Your task to perform on an android device: Open Google Maps Image 0: 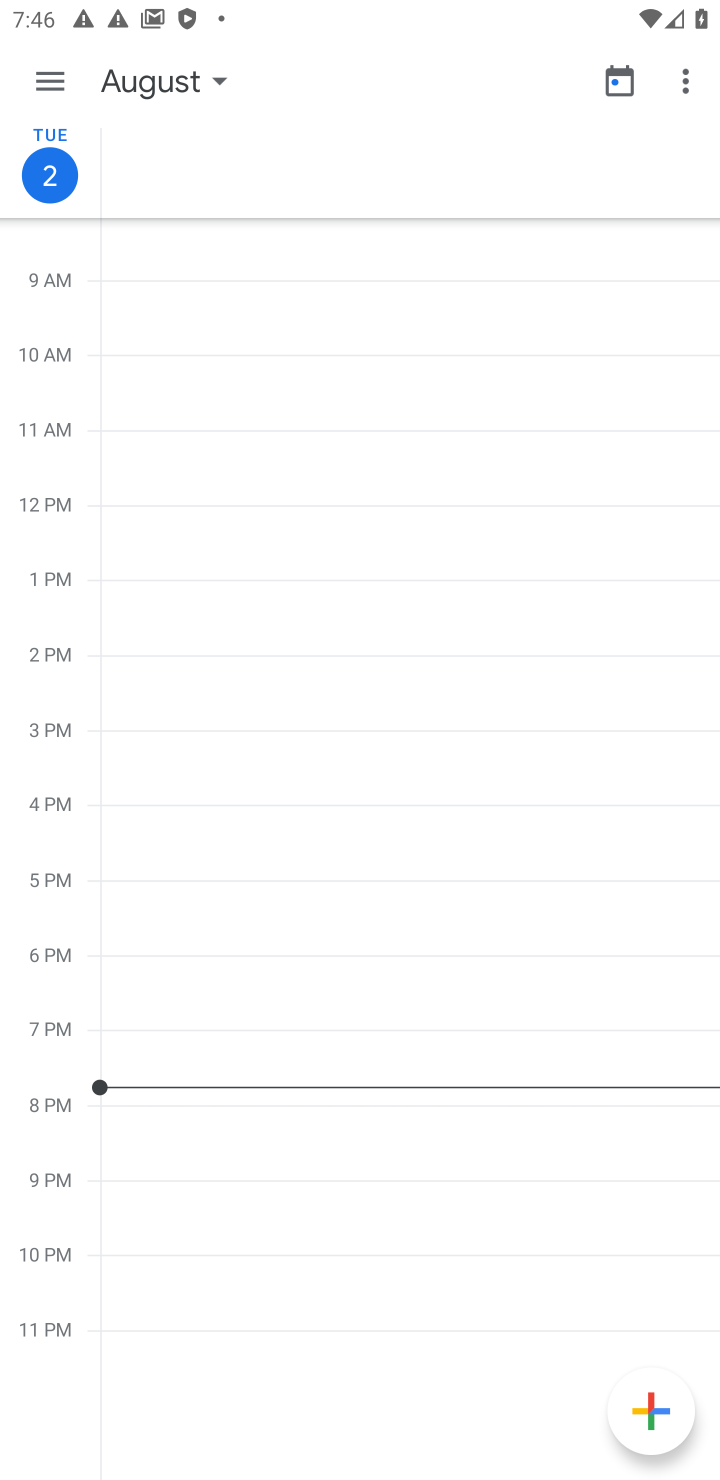
Step 0: press home button
Your task to perform on an android device: Open Google Maps Image 1: 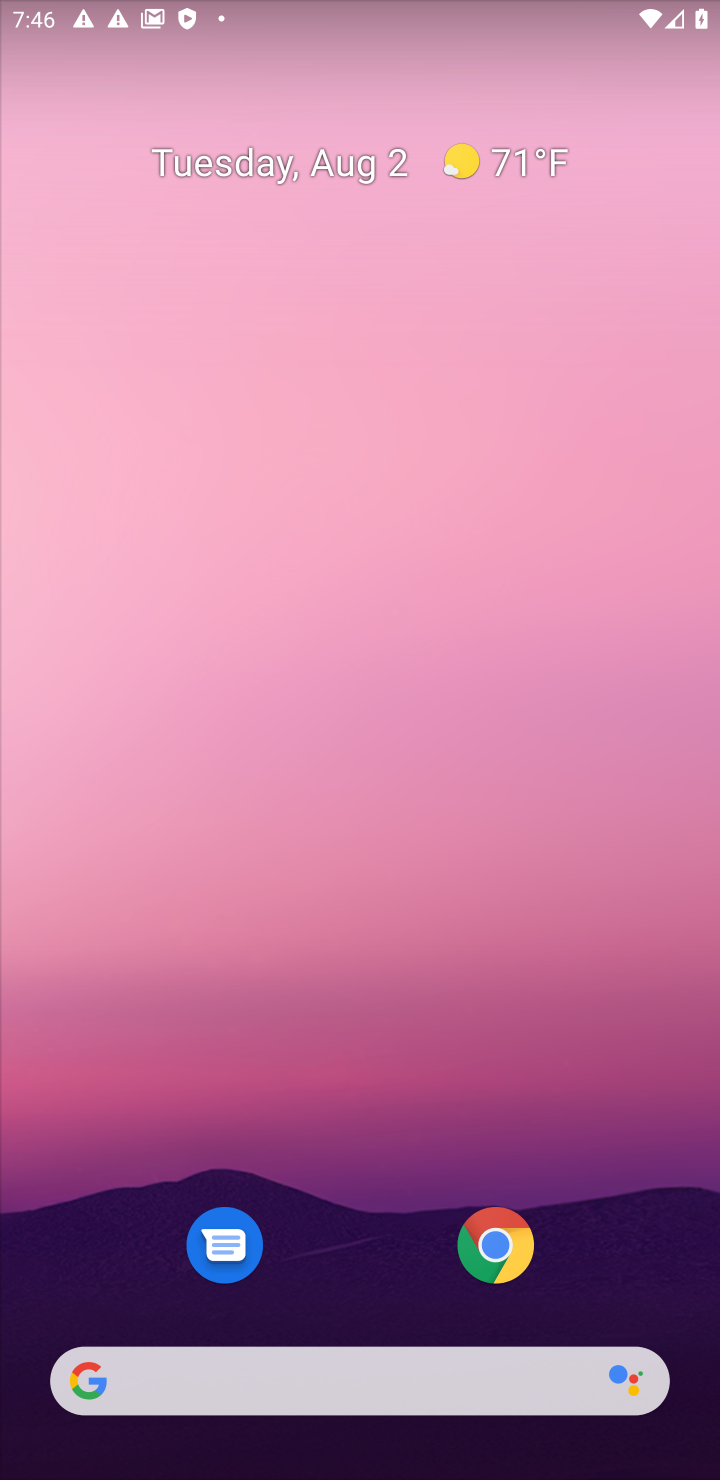
Step 1: drag from (295, 916) to (275, 305)
Your task to perform on an android device: Open Google Maps Image 2: 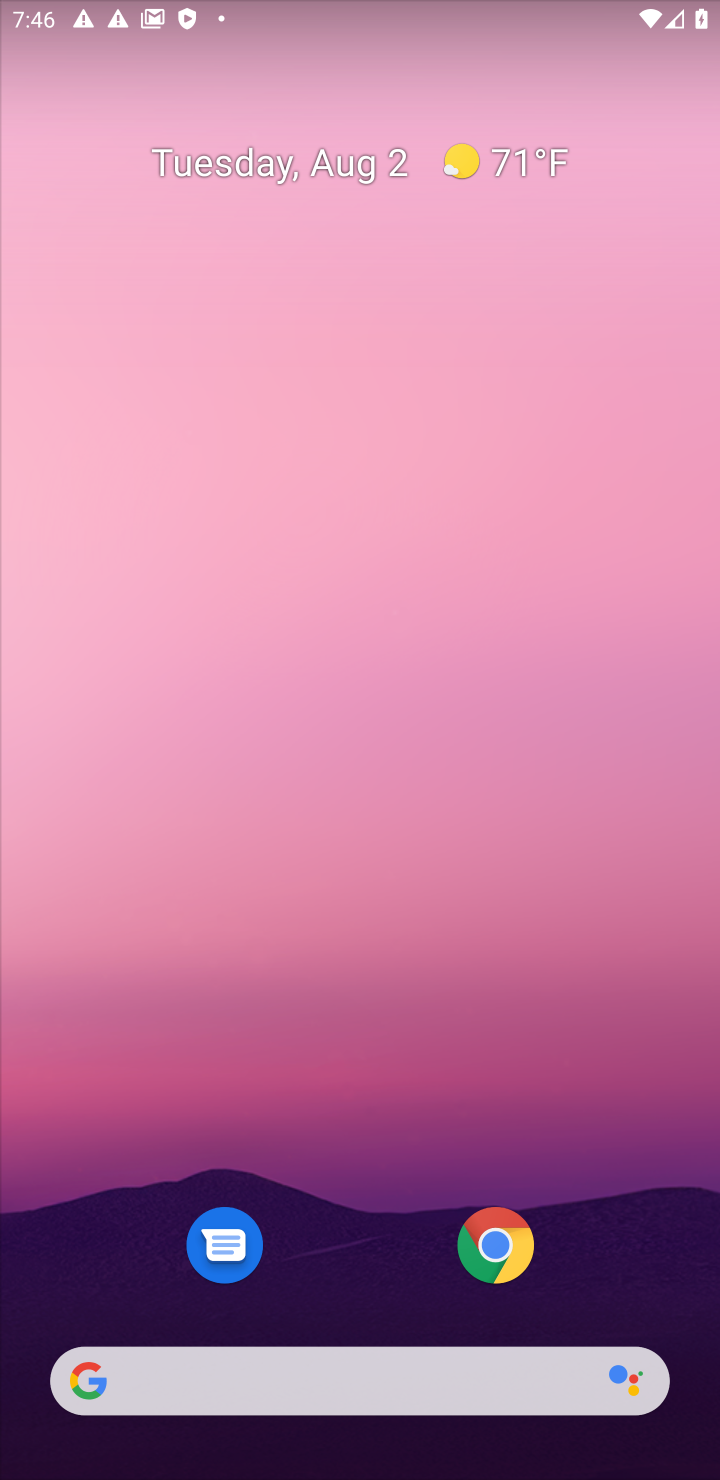
Step 2: drag from (302, 847) to (295, 49)
Your task to perform on an android device: Open Google Maps Image 3: 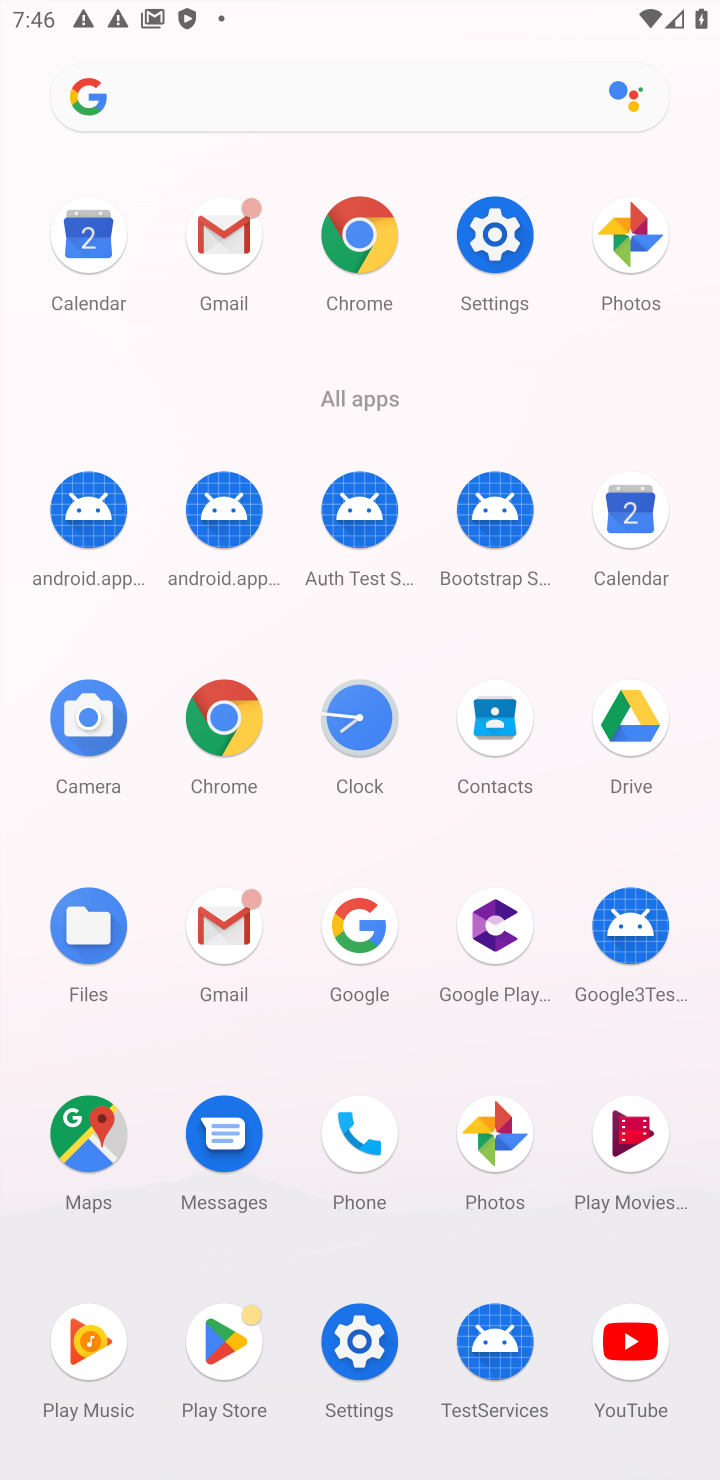
Step 3: click (81, 1128)
Your task to perform on an android device: Open Google Maps Image 4: 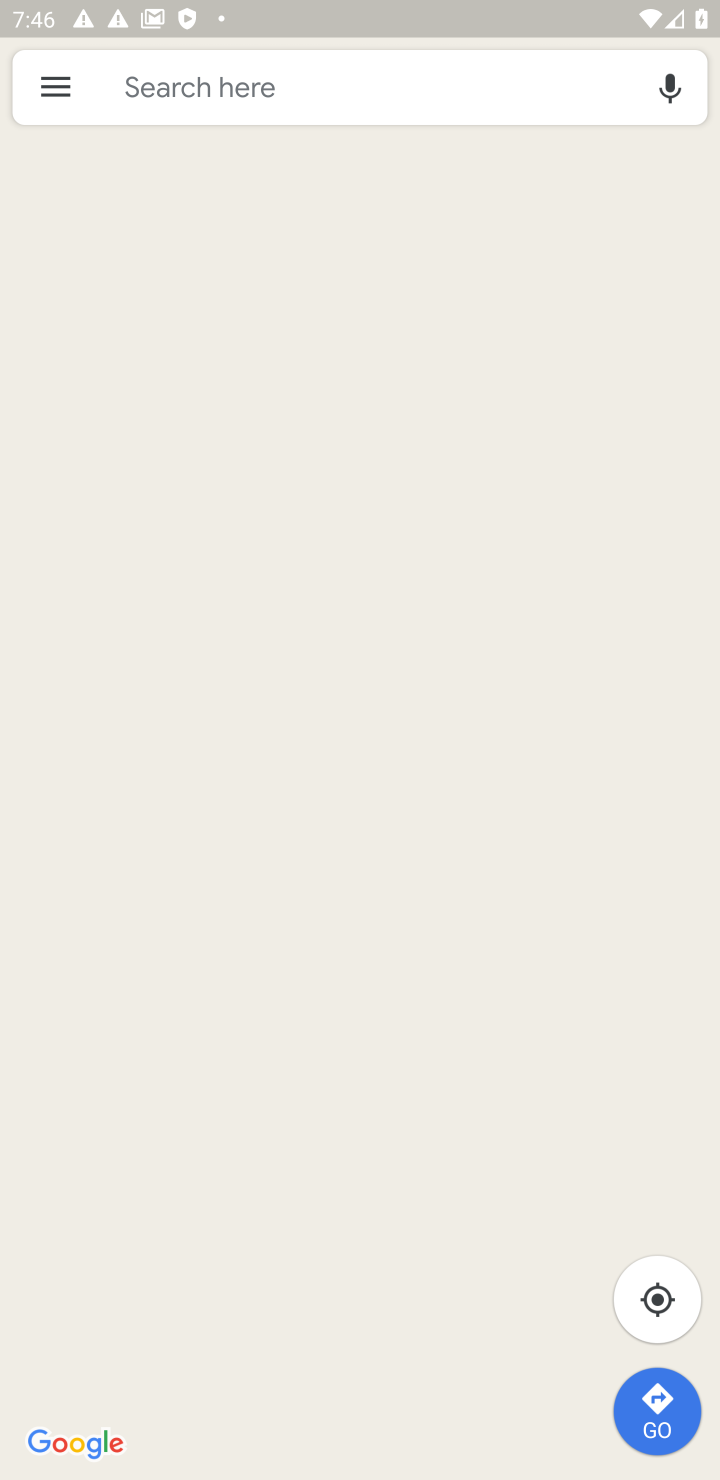
Step 4: task complete